Your task to perform on an android device: Open CNN.com Image 0: 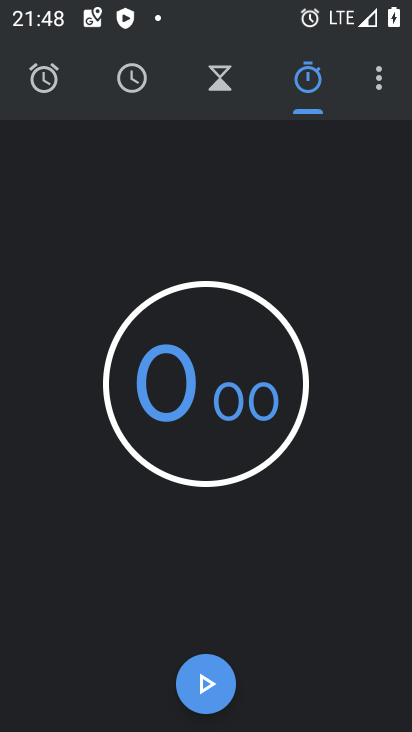
Step 0: press home button
Your task to perform on an android device: Open CNN.com Image 1: 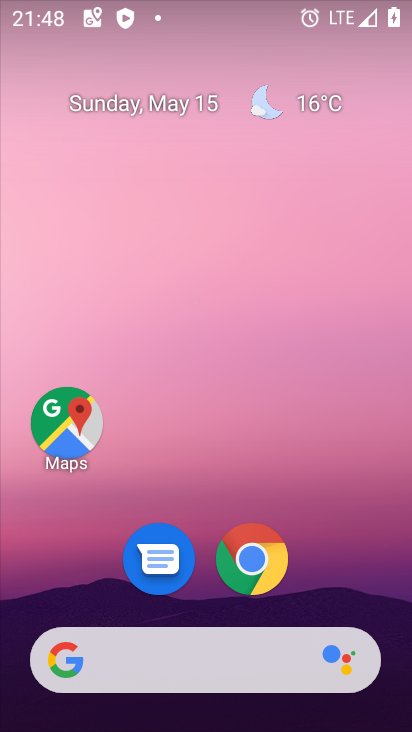
Step 1: click (248, 559)
Your task to perform on an android device: Open CNN.com Image 2: 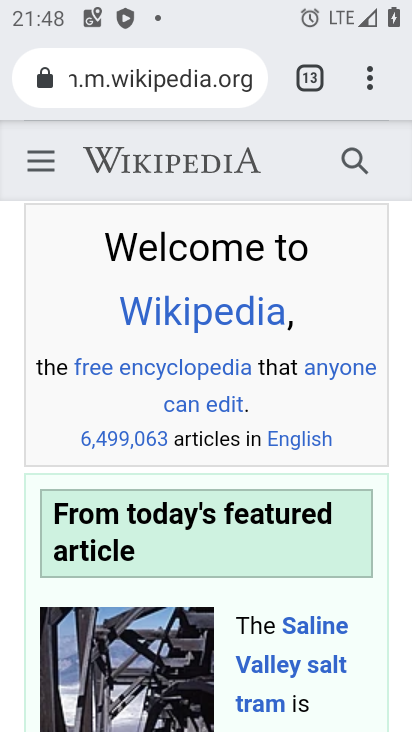
Step 2: click (372, 79)
Your task to perform on an android device: Open CNN.com Image 3: 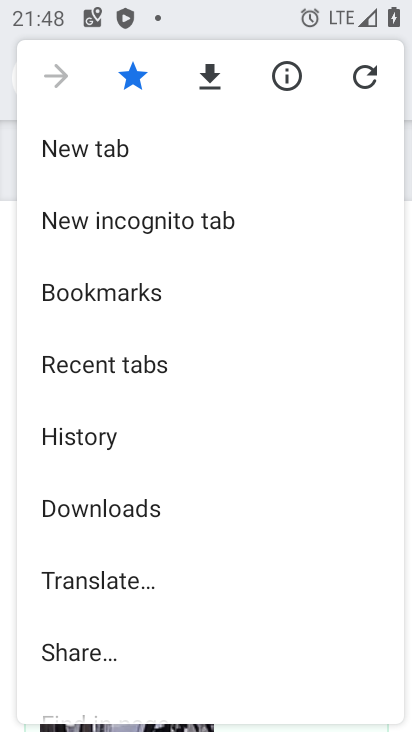
Step 3: click (85, 146)
Your task to perform on an android device: Open CNN.com Image 4: 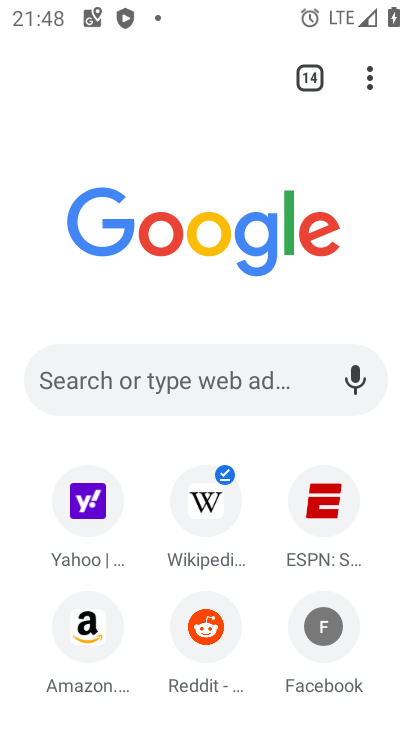
Step 4: click (211, 359)
Your task to perform on an android device: Open CNN.com Image 5: 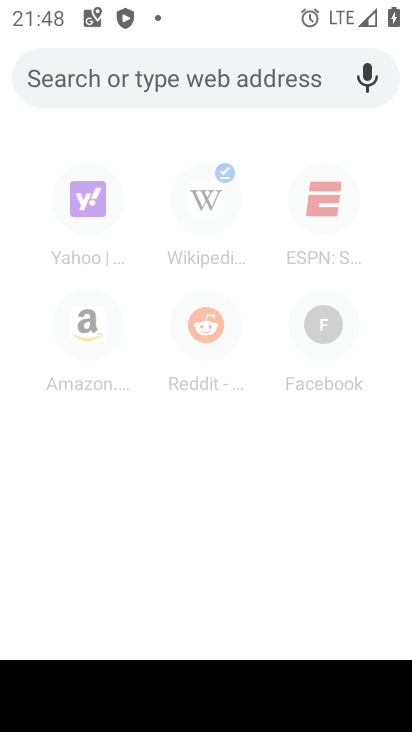
Step 5: type "cnn.com"
Your task to perform on an android device: Open CNN.com Image 6: 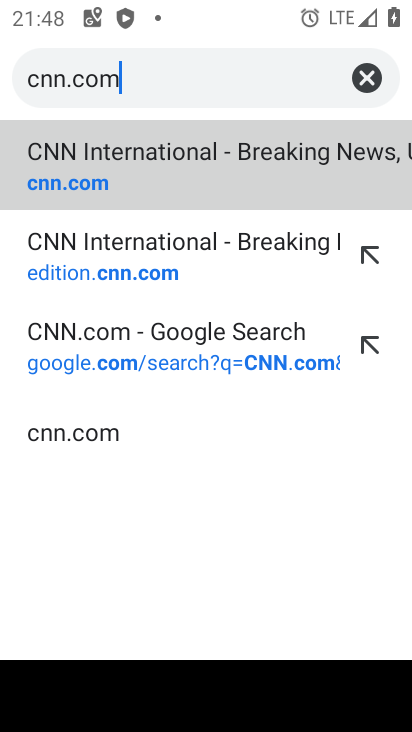
Step 6: click (137, 150)
Your task to perform on an android device: Open CNN.com Image 7: 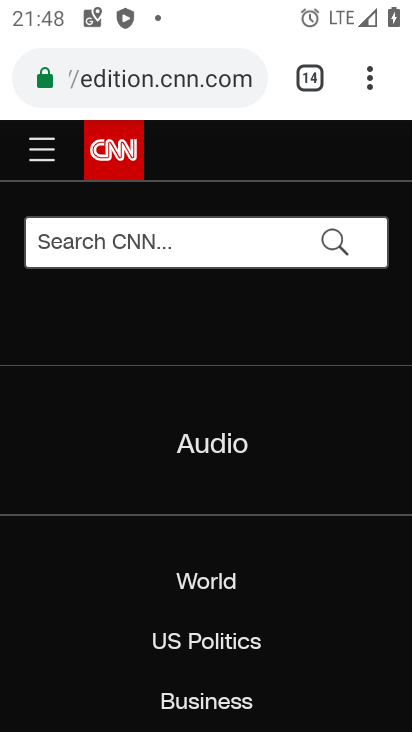
Step 7: task complete